Your task to perform on an android device: turn off wifi Image 0: 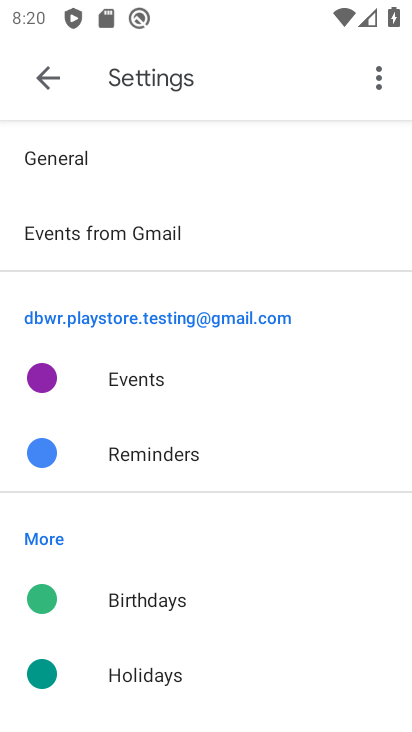
Step 0: press home button
Your task to perform on an android device: turn off wifi Image 1: 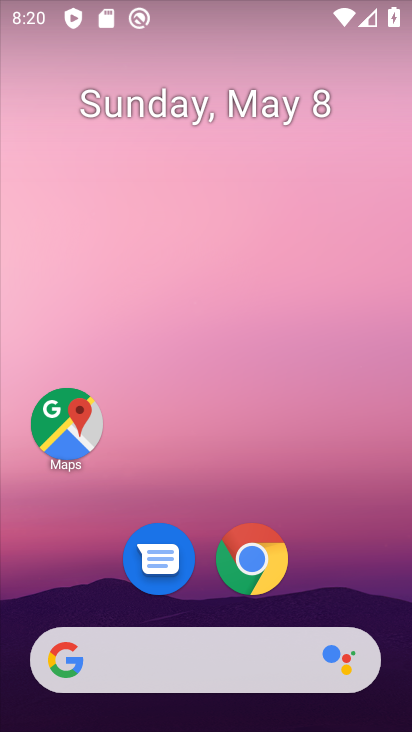
Step 1: drag from (290, 611) to (248, 82)
Your task to perform on an android device: turn off wifi Image 2: 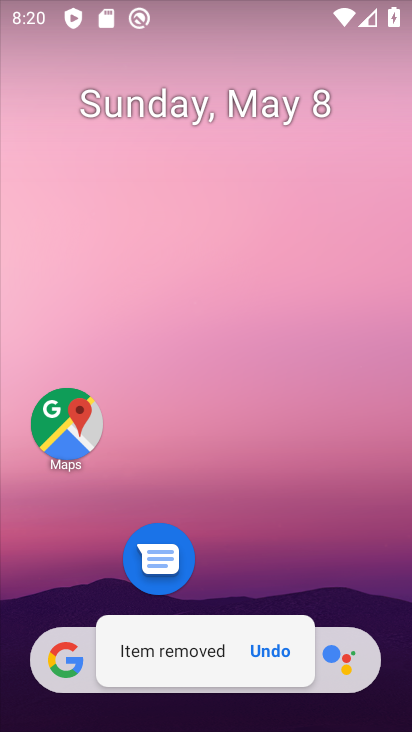
Step 2: drag from (314, 629) to (288, 44)
Your task to perform on an android device: turn off wifi Image 3: 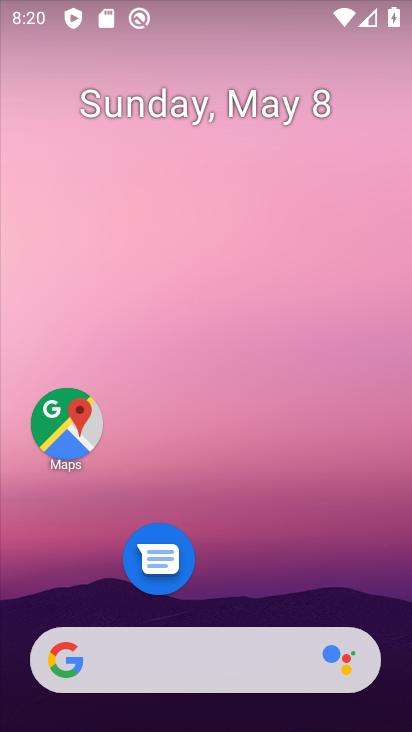
Step 3: drag from (276, 717) to (338, 108)
Your task to perform on an android device: turn off wifi Image 4: 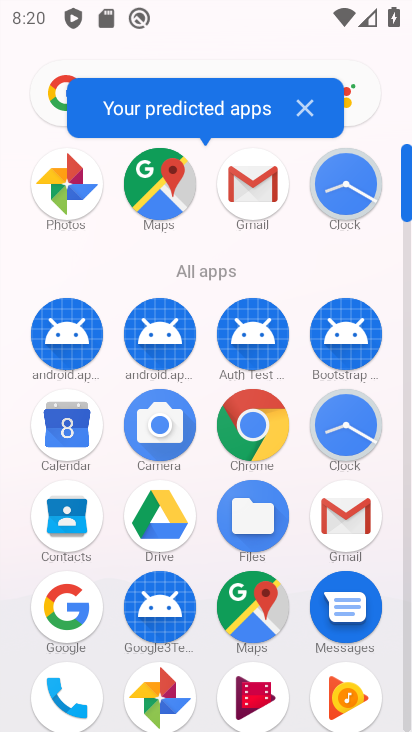
Step 4: drag from (268, 549) to (274, 127)
Your task to perform on an android device: turn off wifi Image 5: 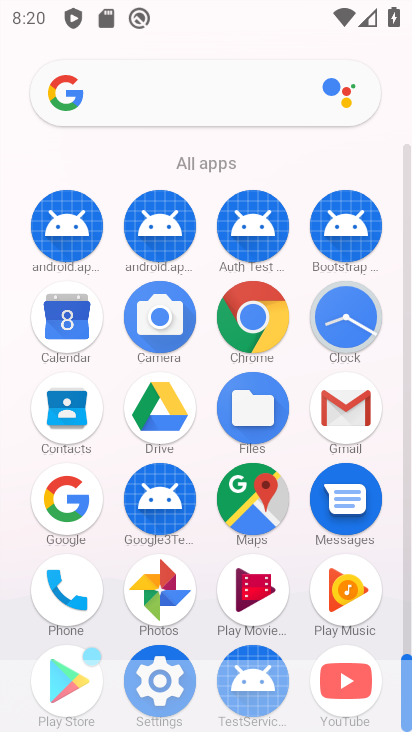
Step 5: click (166, 660)
Your task to perform on an android device: turn off wifi Image 6: 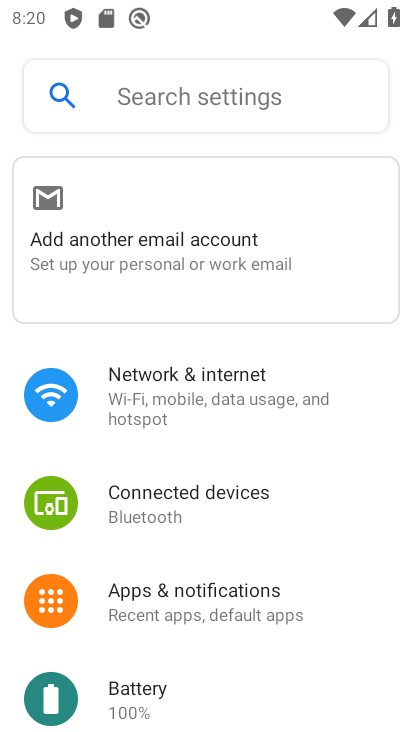
Step 6: click (199, 399)
Your task to perform on an android device: turn off wifi Image 7: 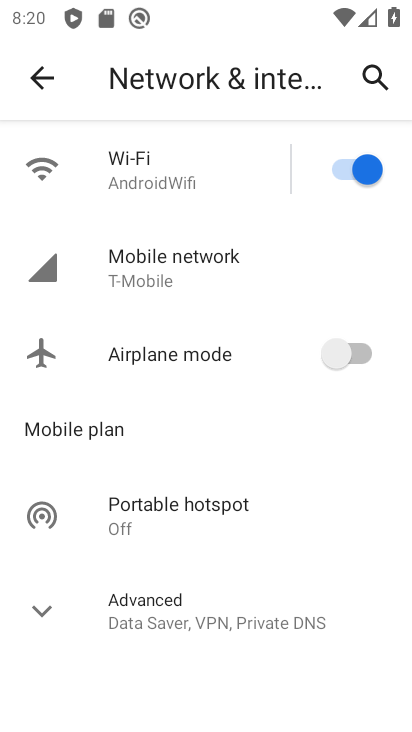
Step 7: click (339, 167)
Your task to perform on an android device: turn off wifi Image 8: 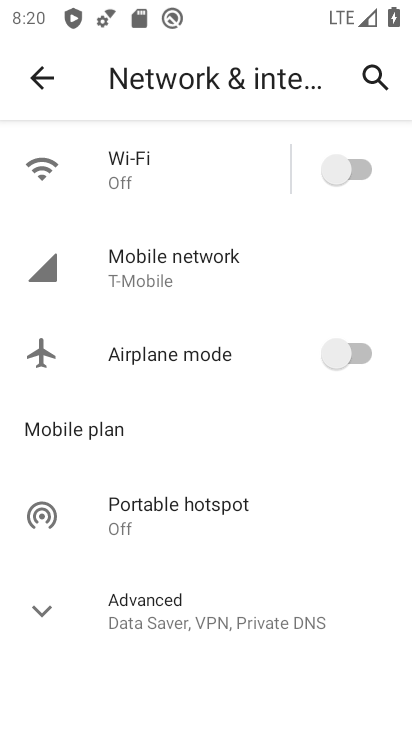
Step 8: task complete